Your task to perform on an android device: manage bookmarks in the chrome app Image 0: 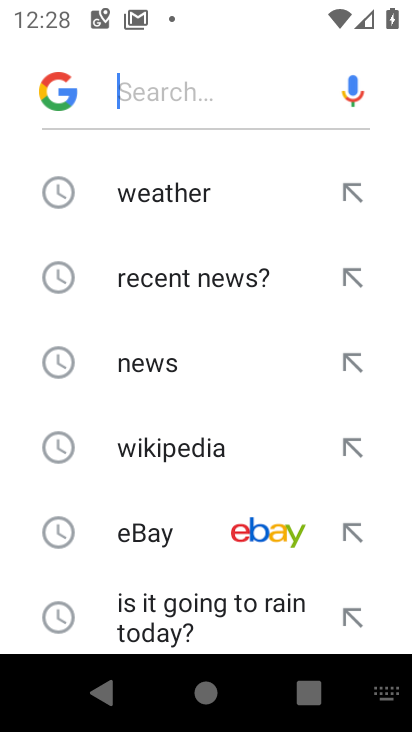
Step 0: press home button
Your task to perform on an android device: manage bookmarks in the chrome app Image 1: 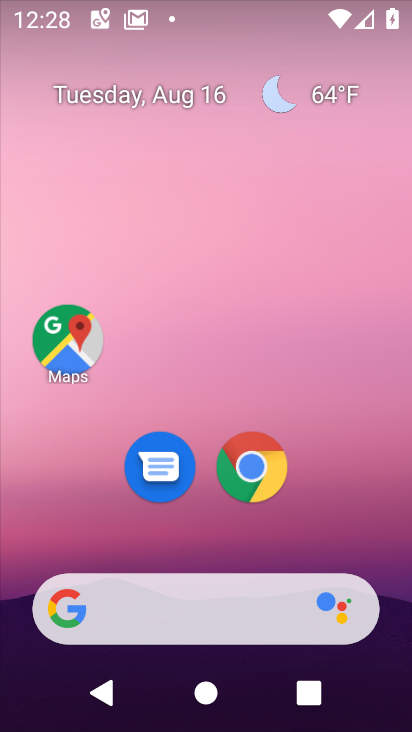
Step 1: drag from (347, 540) to (370, 155)
Your task to perform on an android device: manage bookmarks in the chrome app Image 2: 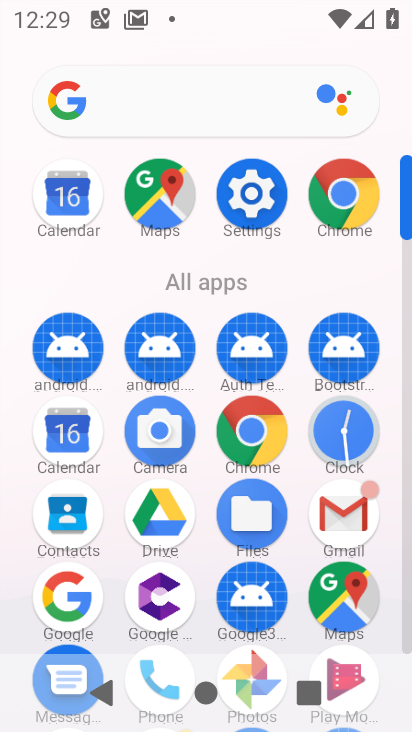
Step 2: click (254, 435)
Your task to perform on an android device: manage bookmarks in the chrome app Image 3: 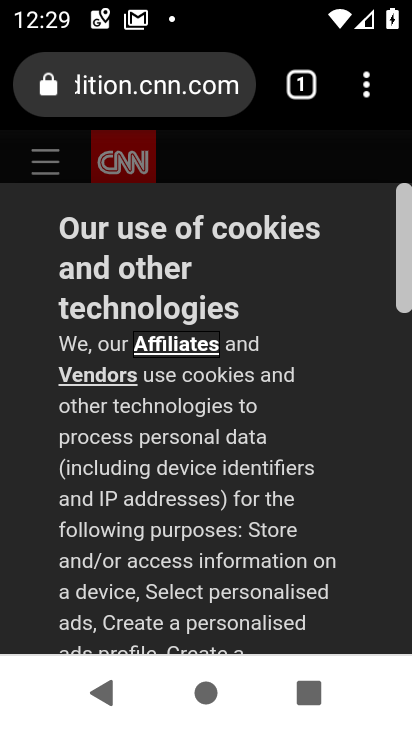
Step 3: click (365, 89)
Your task to perform on an android device: manage bookmarks in the chrome app Image 4: 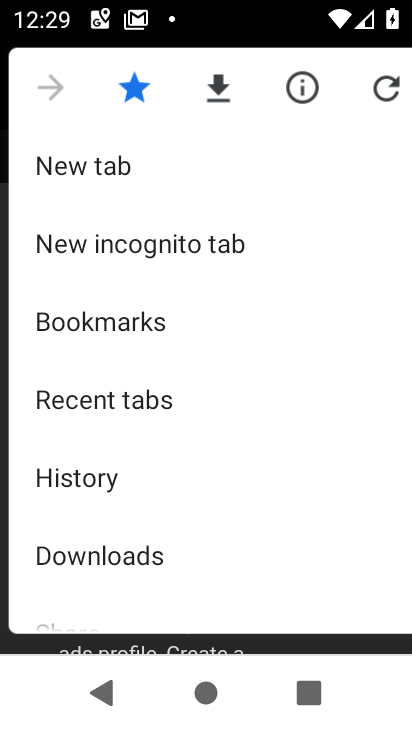
Step 4: click (178, 329)
Your task to perform on an android device: manage bookmarks in the chrome app Image 5: 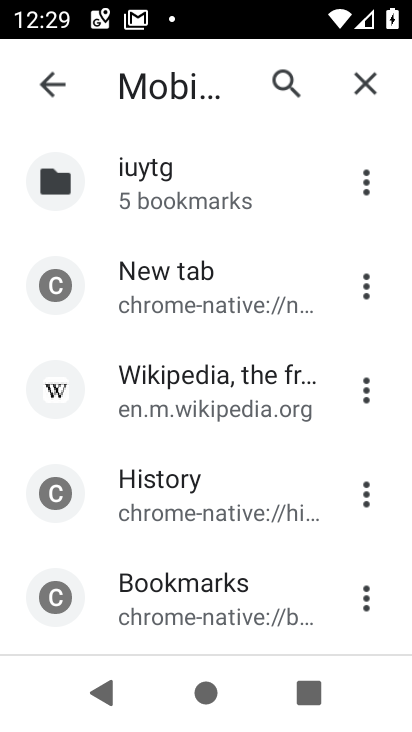
Step 5: click (368, 193)
Your task to perform on an android device: manage bookmarks in the chrome app Image 6: 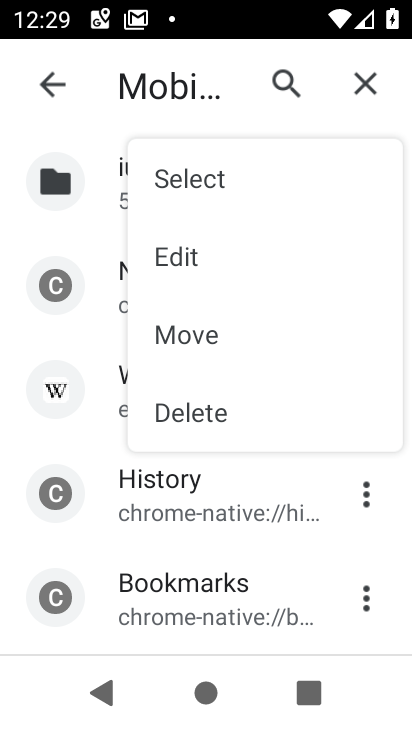
Step 6: click (184, 277)
Your task to perform on an android device: manage bookmarks in the chrome app Image 7: 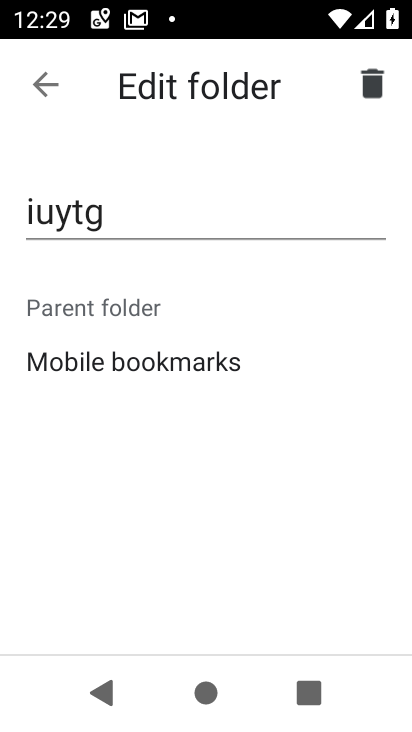
Step 7: click (137, 223)
Your task to perform on an android device: manage bookmarks in the chrome app Image 8: 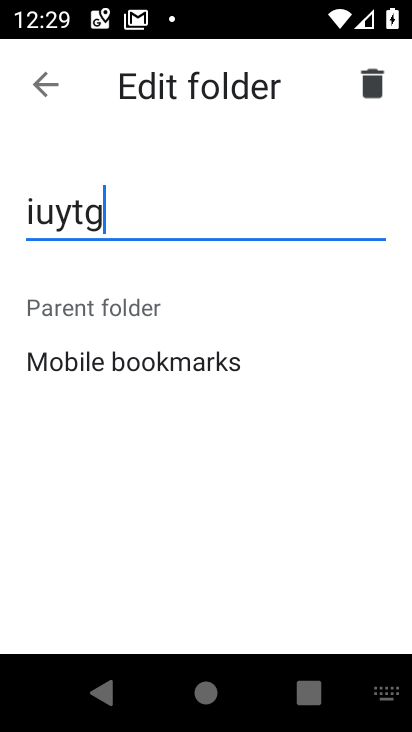
Step 8: type "g"
Your task to perform on an android device: manage bookmarks in the chrome app Image 9: 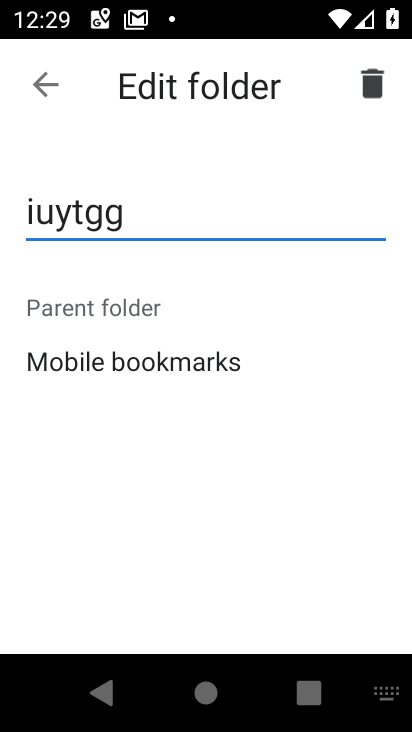
Step 9: click (32, 82)
Your task to perform on an android device: manage bookmarks in the chrome app Image 10: 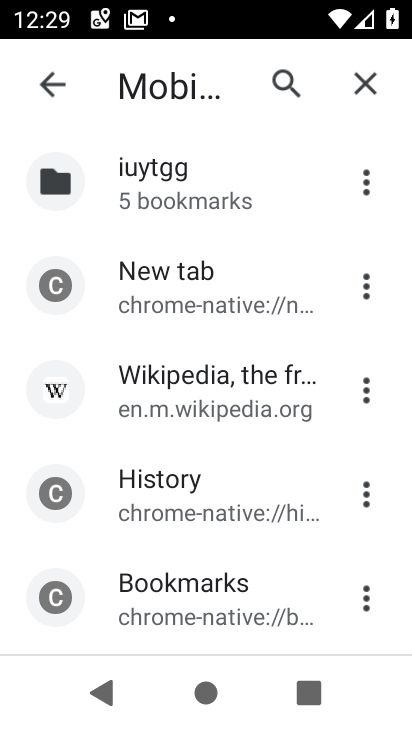
Step 10: task complete